Your task to perform on an android device: turn on the 12-hour format for clock Image 0: 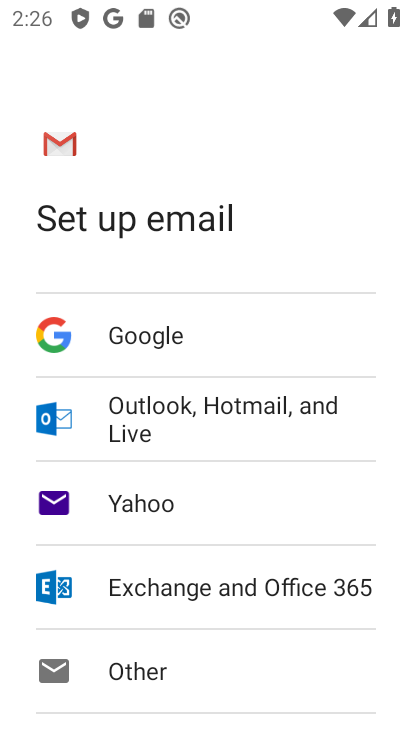
Step 0: press home button
Your task to perform on an android device: turn on the 12-hour format for clock Image 1: 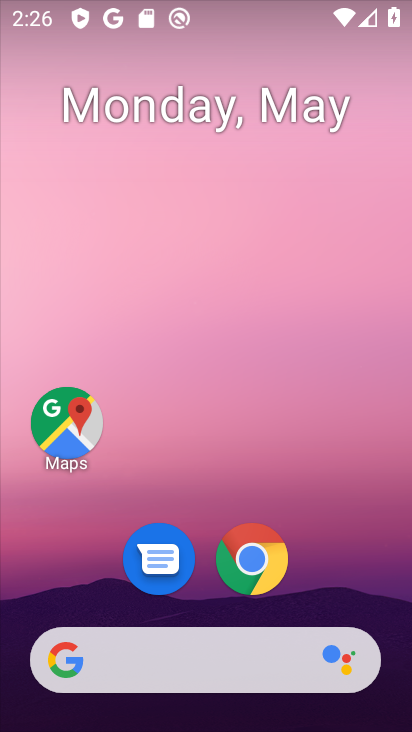
Step 1: drag from (314, 604) to (327, 83)
Your task to perform on an android device: turn on the 12-hour format for clock Image 2: 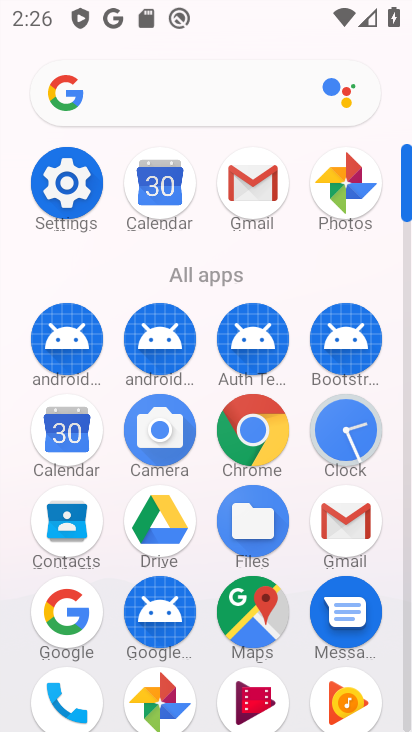
Step 2: click (350, 430)
Your task to perform on an android device: turn on the 12-hour format for clock Image 3: 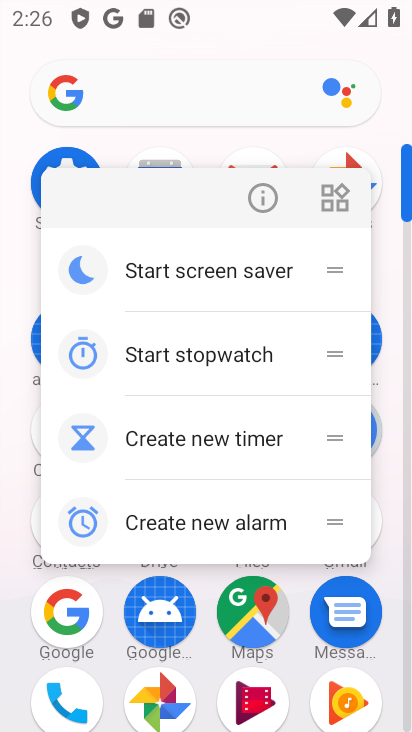
Step 3: click (374, 431)
Your task to perform on an android device: turn on the 12-hour format for clock Image 4: 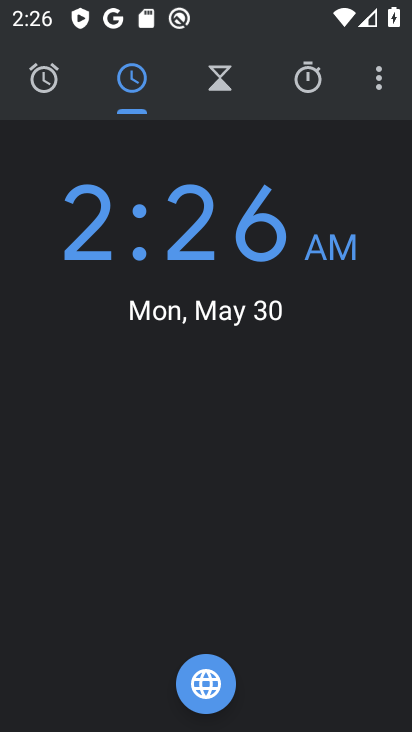
Step 4: click (373, 84)
Your task to perform on an android device: turn on the 12-hour format for clock Image 5: 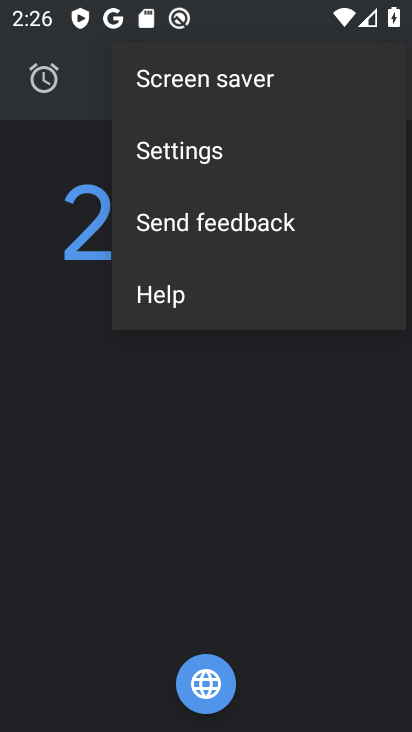
Step 5: click (180, 150)
Your task to perform on an android device: turn on the 12-hour format for clock Image 6: 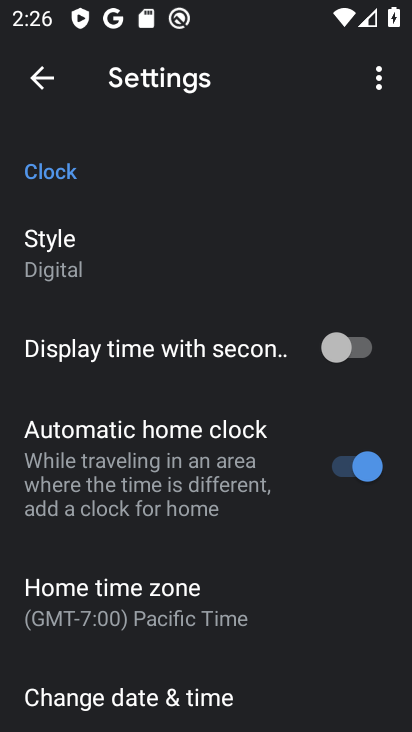
Step 6: drag from (243, 633) to (262, 238)
Your task to perform on an android device: turn on the 12-hour format for clock Image 7: 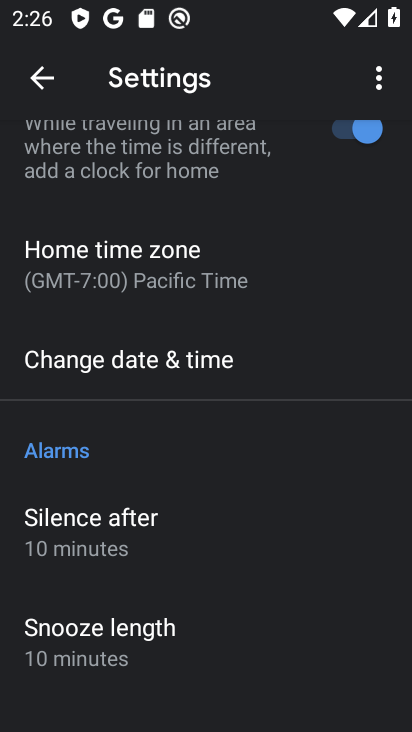
Step 7: click (152, 351)
Your task to perform on an android device: turn on the 12-hour format for clock Image 8: 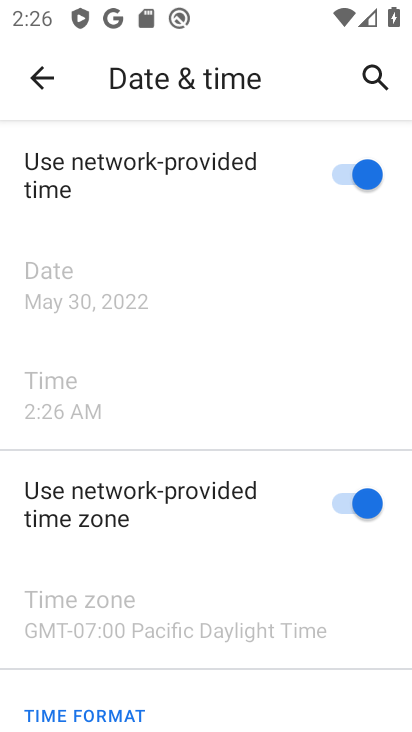
Step 8: task complete